Your task to perform on an android device: Go to sound settings Image 0: 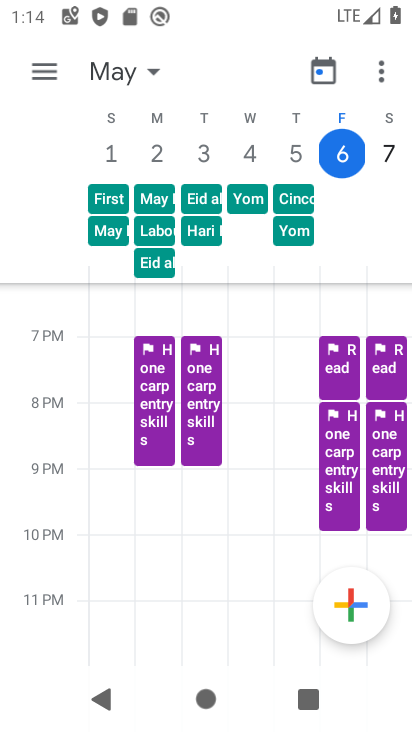
Step 0: press home button
Your task to perform on an android device: Go to sound settings Image 1: 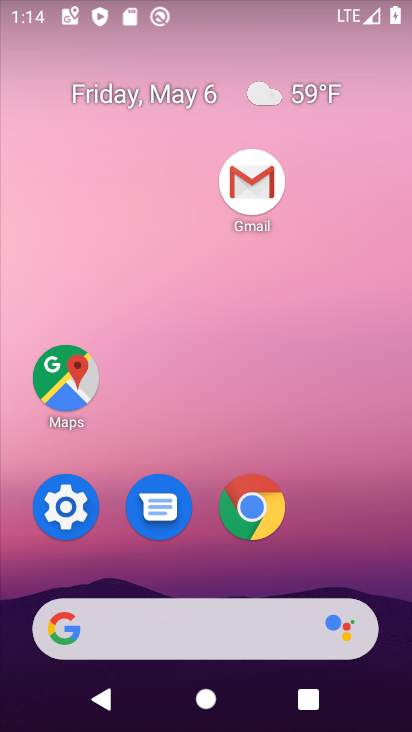
Step 1: click (65, 502)
Your task to perform on an android device: Go to sound settings Image 2: 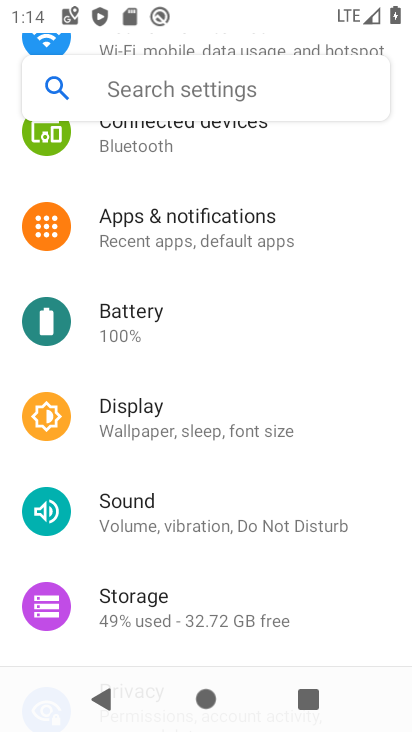
Step 2: click (123, 503)
Your task to perform on an android device: Go to sound settings Image 3: 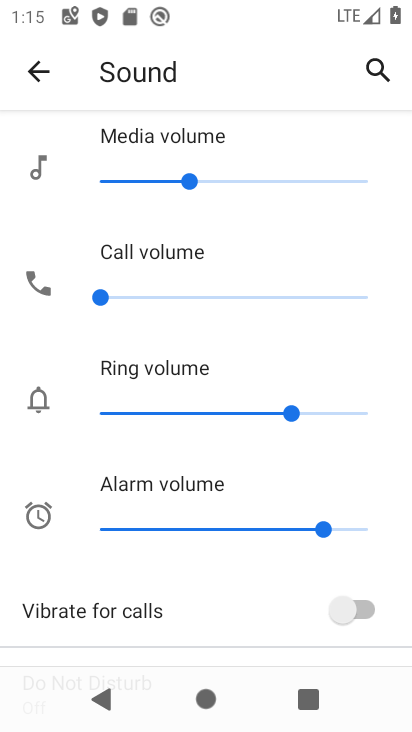
Step 3: task complete